Your task to perform on an android device: change notifications settings Image 0: 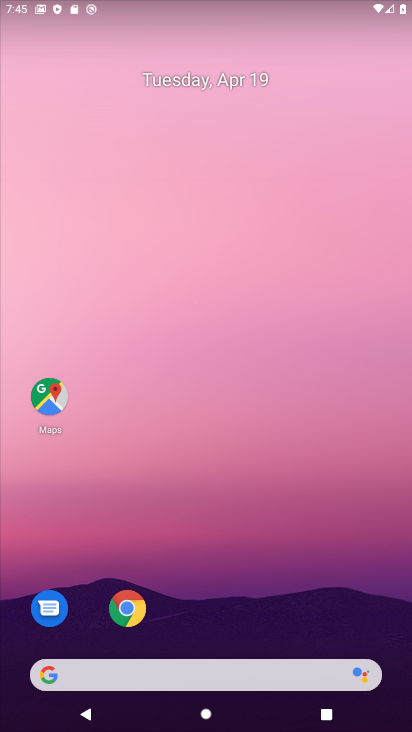
Step 0: drag from (262, 584) to (181, 247)
Your task to perform on an android device: change notifications settings Image 1: 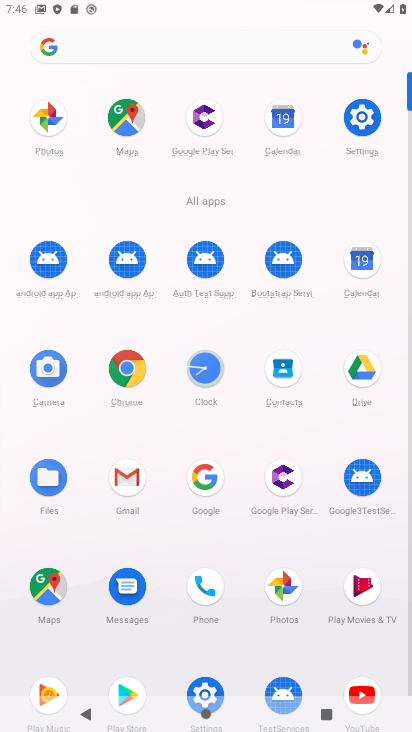
Step 1: click (358, 115)
Your task to perform on an android device: change notifications settings Image 2: 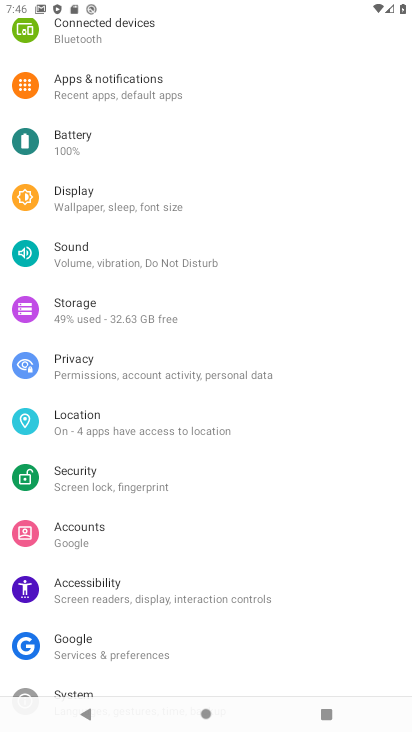
Step 2: click (152, 74)
Your task to perform on an android device: change notifications settings Image 3: 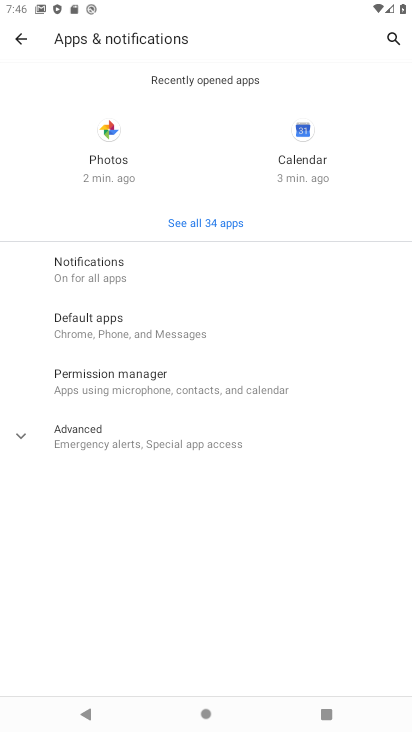
Step 3: click (266, 265)
Your task to perform on an android device: change notifications settings Image 4: 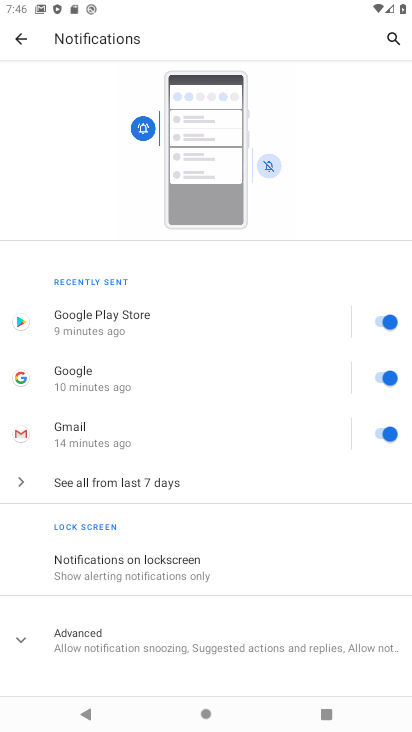
Step 4: click (234, 621)
Your task to perform on an android device: change notifications settings Image 5: 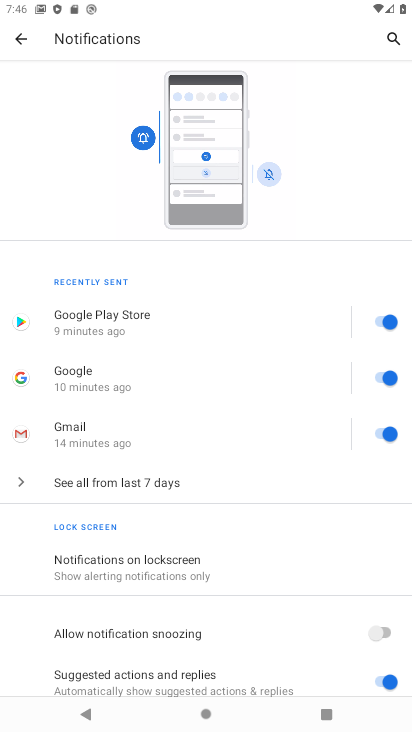
Step 5: click (380, 629)
Your task to perform on an android device: change notifications settings Image 6: 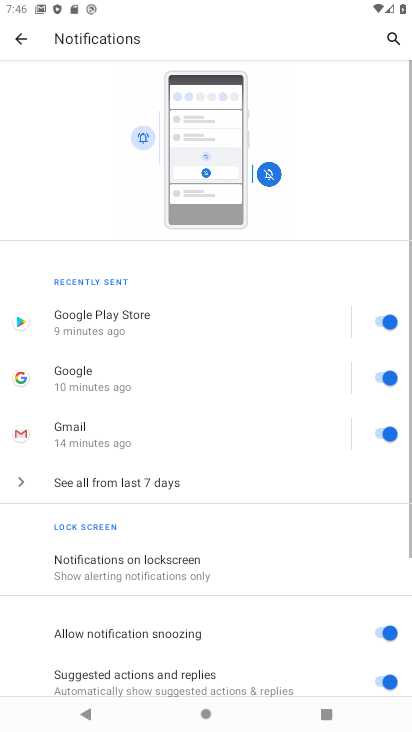
Step 6: task complete